Your task to perform on an android device: open sync settings in chrome Image 0: 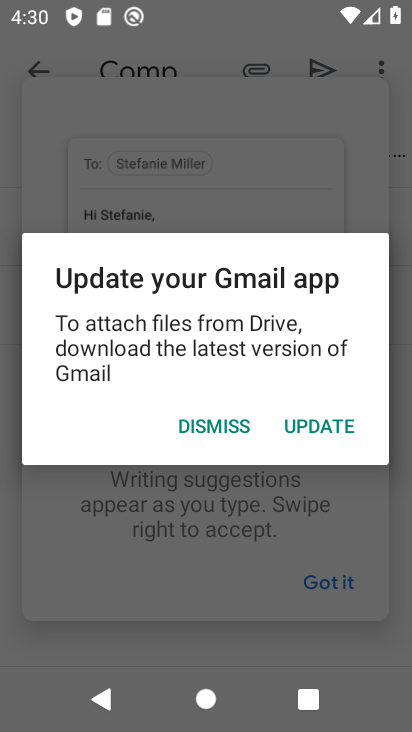
Step 0: press home button
Your task to perform on an android device: open sync settings in chrome Image 1: 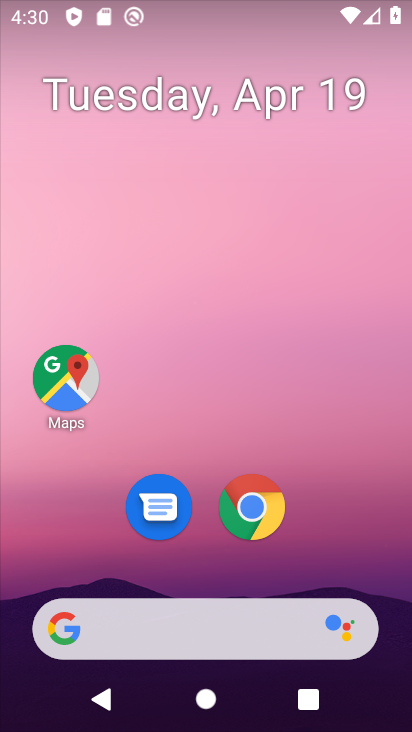
Step 1: drag from (302, 396) to (286, 18)
Your task to perform on an android device: open sync settings in chrome Image 2: 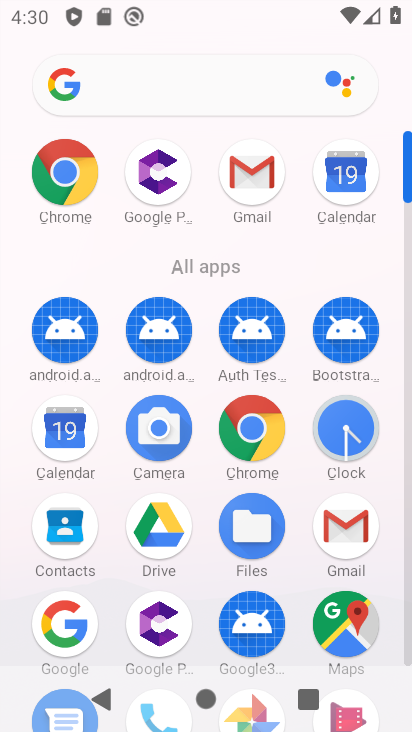
Step 2: click (257, 430)
Your task to perform on an android device: open sync settings in chrome Image 3: 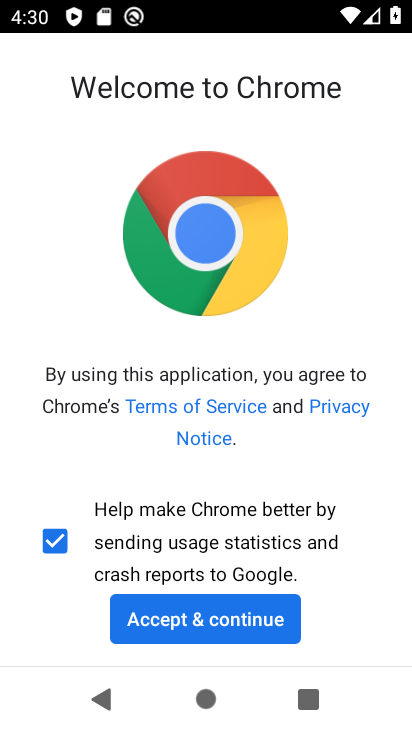
Step 3: click (190, 619)
Your task to perform on an android device: open sync settings in chrome Image 4: 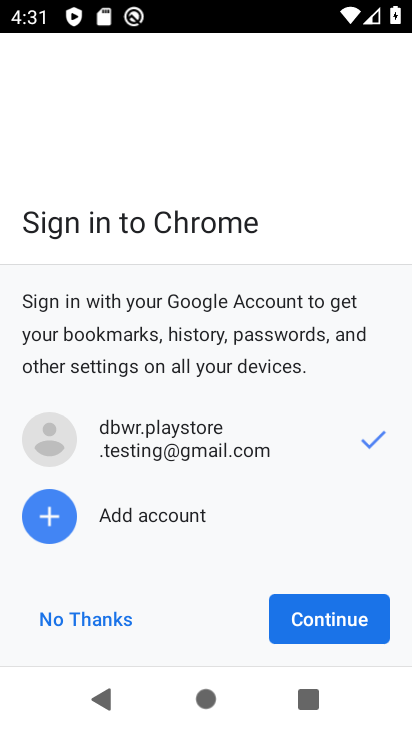
Step 4: click (342, 612)
Your task to perform on an android device: open sync settings in chrome Image 5: 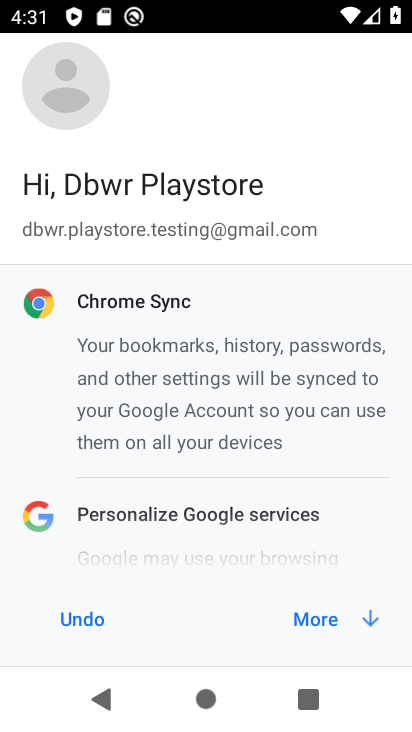
Step 5: click (341, 611)
Your task to perform on an android device: open sync settings in chrome Image 6: 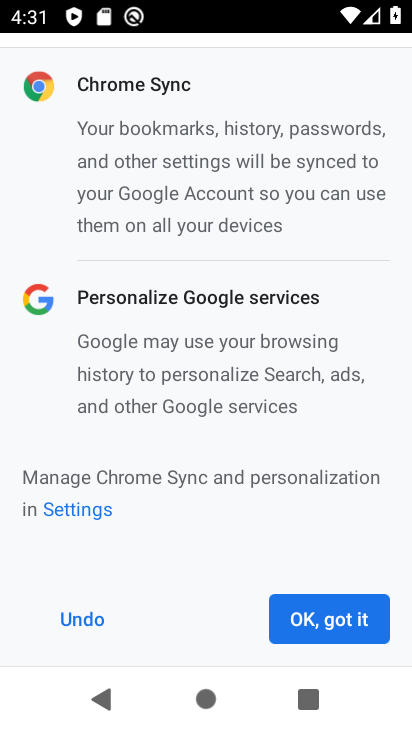
Step 6: click (341, 611)
Your task to perform on an android device: open sync settings in chrome Image 7: 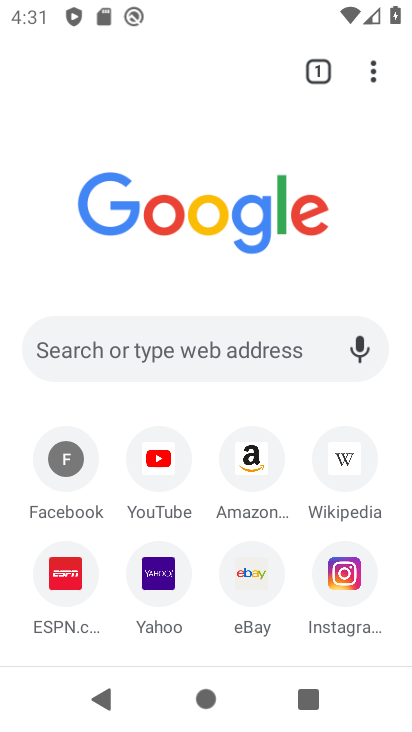
Step 7: click (371, 65)
Your task to perform on an android device: open sync settings in chrome Image 8: 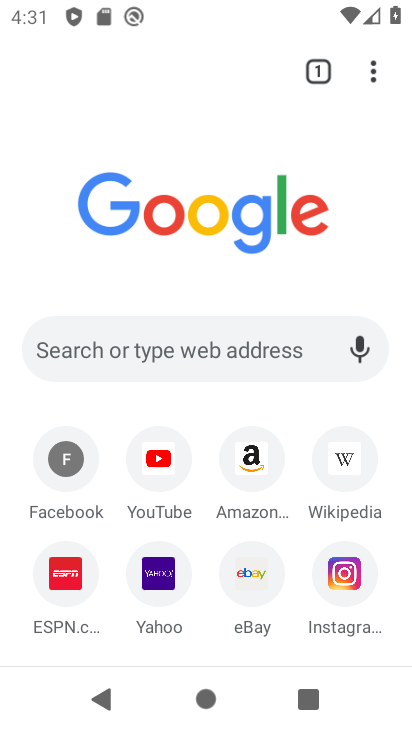
Step 8: drag from (370, 61) to (170, 492)
Your task to perform on an android device: open sync settings in chrome Image 9: 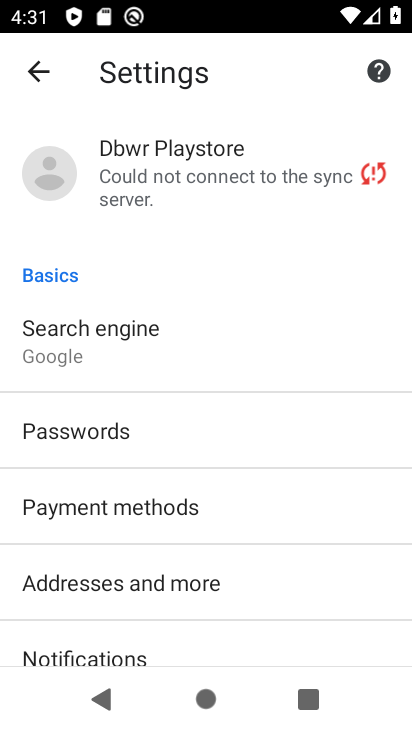
Step 9: click (183, 182)
Your task to perform on an android device: open sync settings in chrome Image 10: 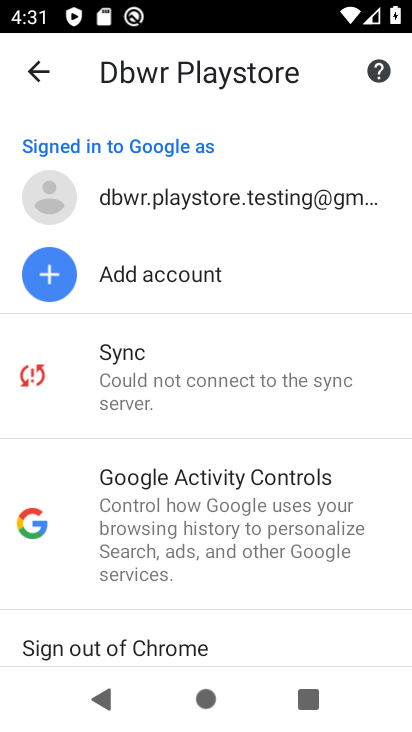
Step 10: click (236, 399)
Your task to perform on an android device: open sync settings in chrome Image 11: 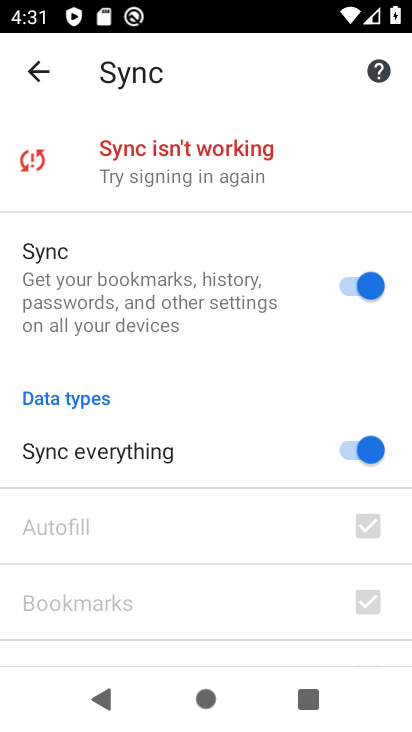
Step 11: task complete